Your task to perform on an android device: Toggle the flashlight Image 0: 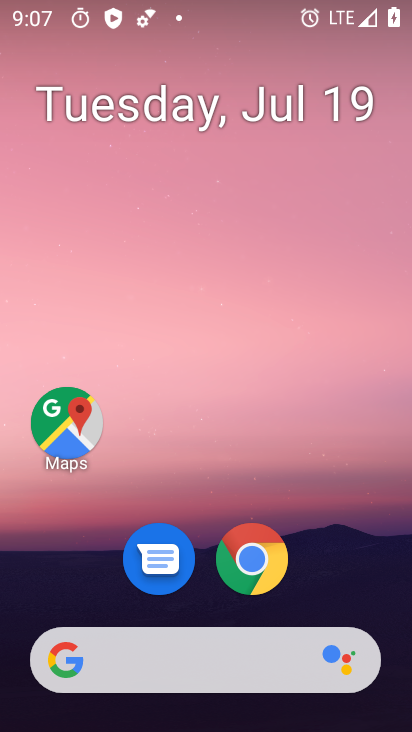
Step 0: drag from (271, 9) to (186, 487)
Your task to perform on an android device: Toggle the flashlight Image 1: 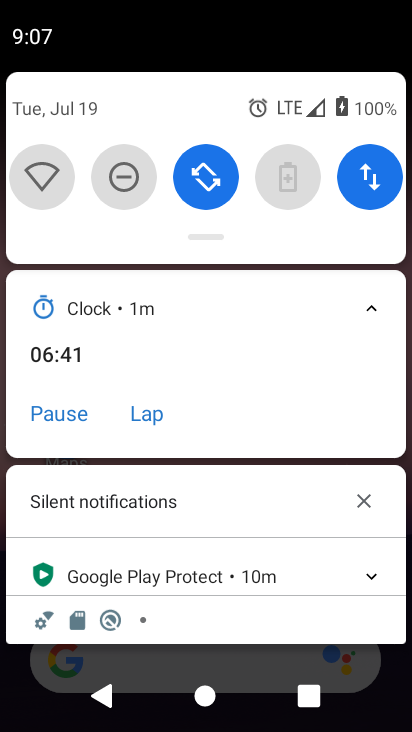
Step 1: drag from (250, 214) to (250, 584)
Your task to perform on an android device: Toggle the flashlight Image 2: 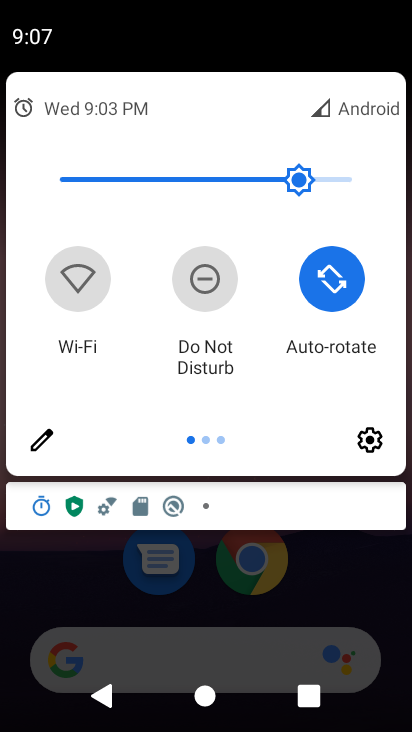
Step 2: click (38, 445)
Your task to perform on an android device: Toggle the flashlight Image 3: 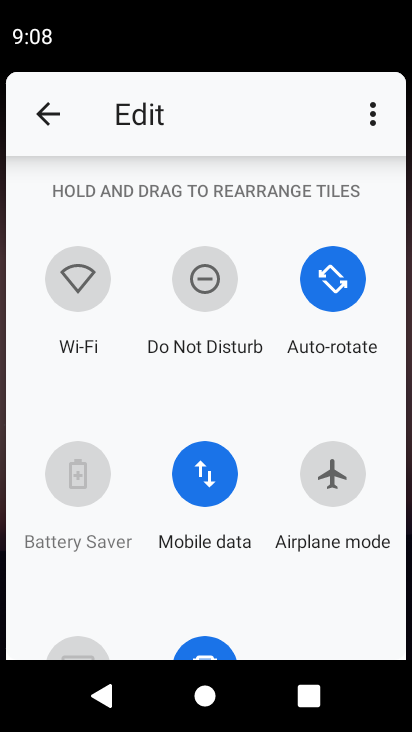
Step 3: task complete